Your task to perform on an android device: Search for pizza restaurants on Maps Image 0: 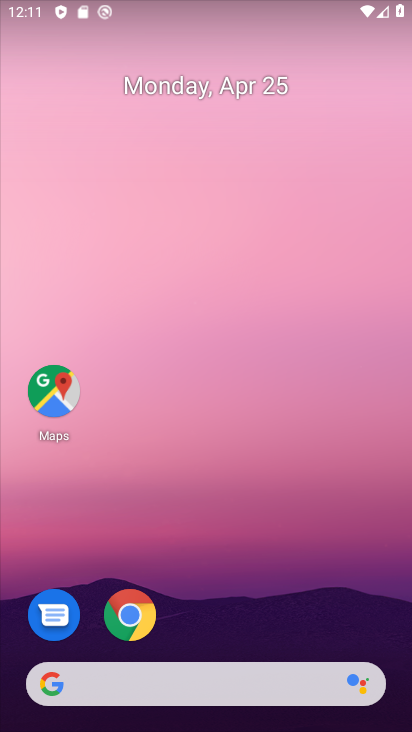
Step 0: drag from (316, 614) to (350, 168)
Your task to perform on an android device: Search for pizza restaurants on Maps Image 1: 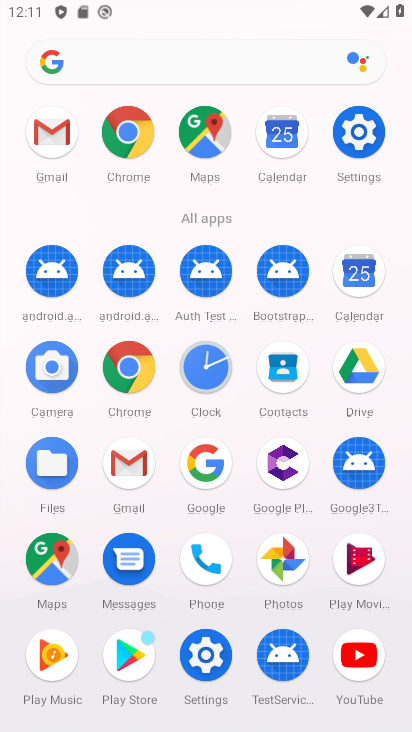
Step 1: click (50, 562)
Your task to perform on an android device: Search for pizza restaurants on Maps Image 2: 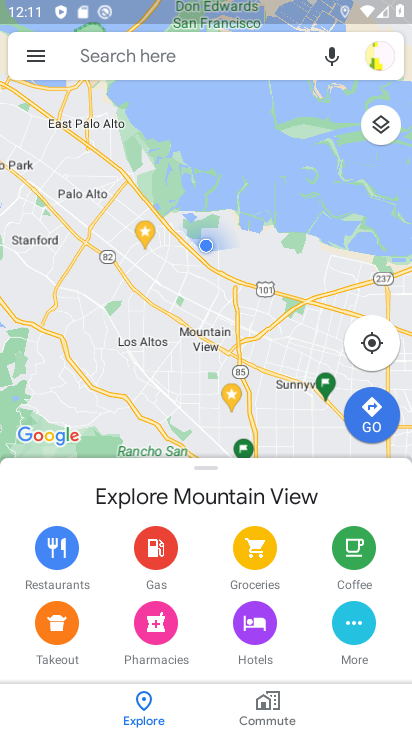
Step 2: click (208, 57)
Your task to perform on an android device: Search for pizza restaurants on Maps Image 3: 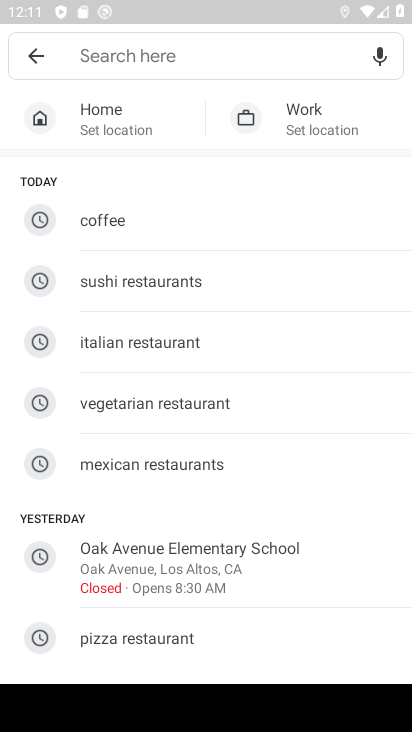
Step 3: click (154, 55)
Your task to perform on an android device: Search for pizza restaurants on Maps Image 4: 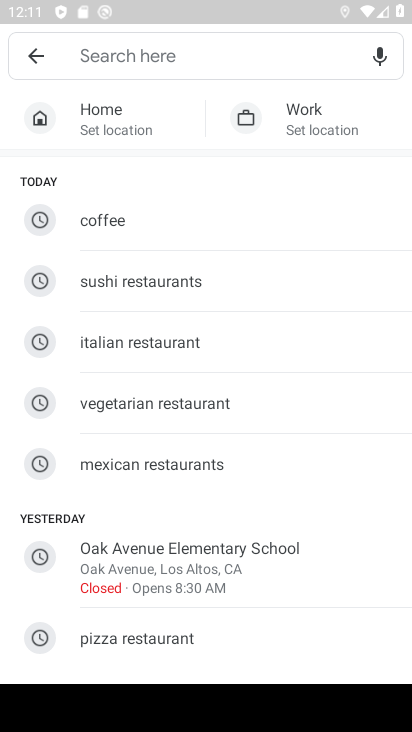
Step 4: type "pizza restaurants"
Your task to perform on an android device: Search for pizza restaurants on Maps Image 5: 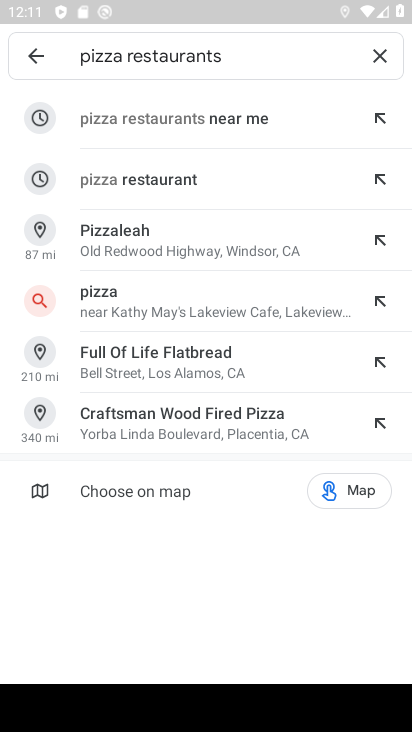
Step 5: click (211, 185)
Your task to perform on an android device: Search for pizza restaurants on Maps Image 6: 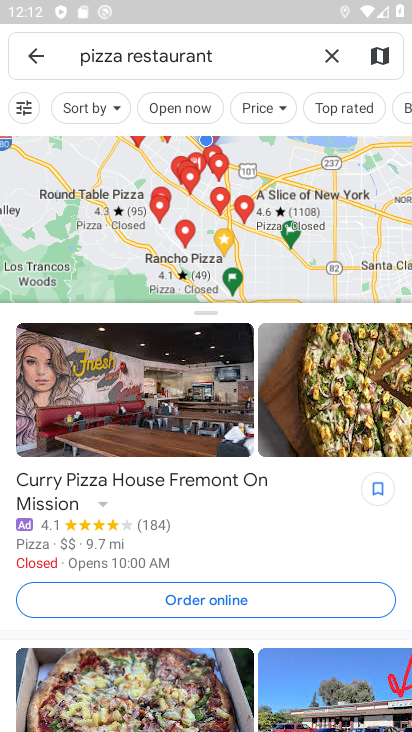
Step 6: task complete